Your task to perform on an android device: star an email in the gmail app Image 0: 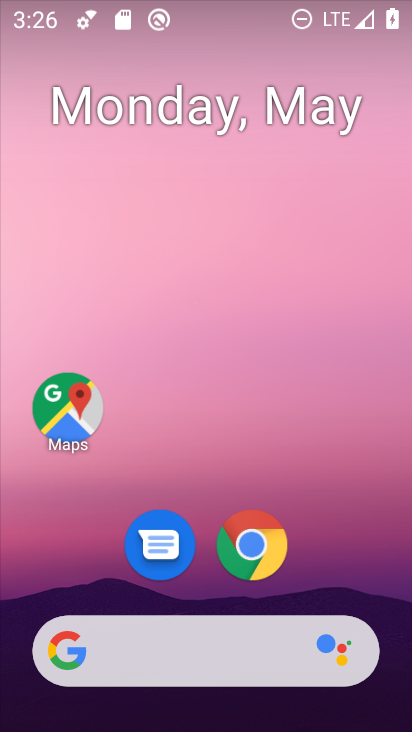
Step 0: drag from (289, 511) to (284, 142)
Your task to perform on an android device: star an email in the gmail app Image 1: 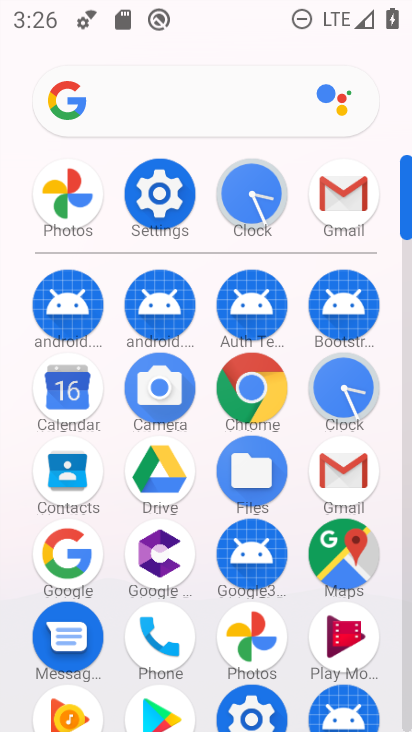
Step 1: click (354, 217)
Your task to perform on an android device: star an email in the gmail app Image 2: 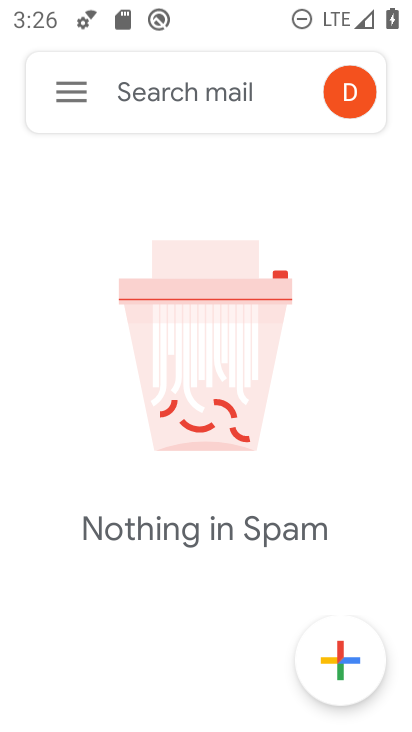
Step 2: click (62, 88)
Your task to perform on an android device: star an email in the gmail app Image 3: 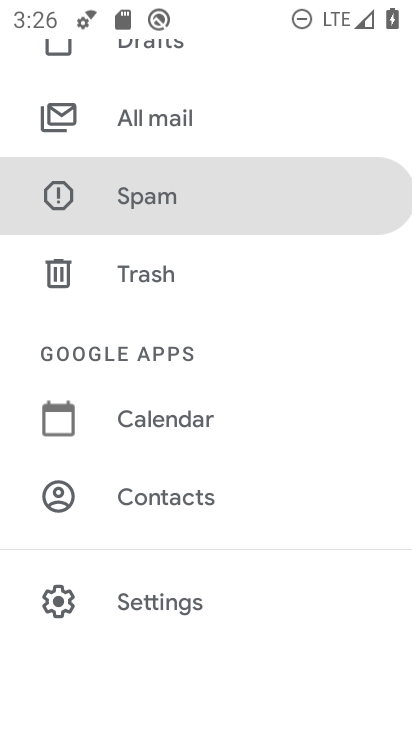
Step 3: drag from (289, 162) to (355, 572)
Your task to perform on an android device: star an email in the gmail app Image 4: 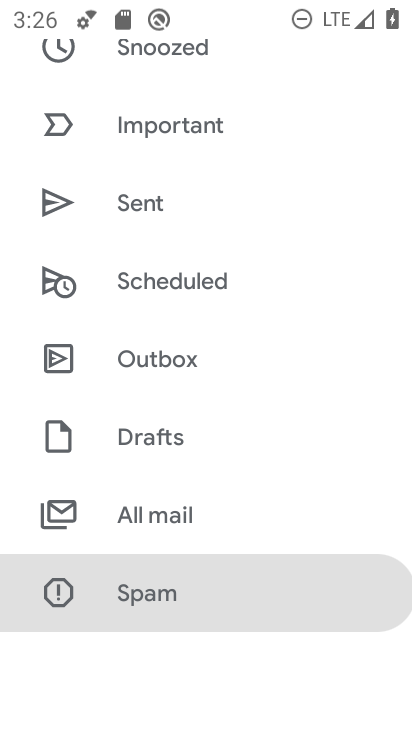
Step 4: drag from (274, 281) to (275, 537)
Your task to perform on an android device: star an email in the gmail app Image 5: 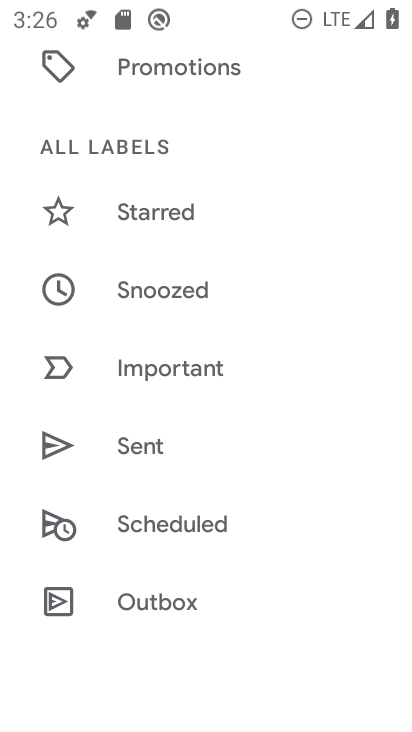
Step 5: drag from (278, 225) to (321, 548)
Your task to perform on an android device: star an email in the gmail app Image 6: 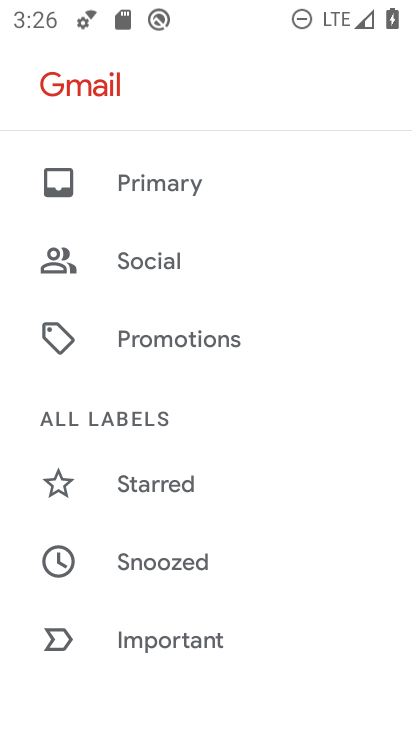
Step 6: click (168, 175)
Your task to perform on an android device: star an email in the gmail app Image 7: 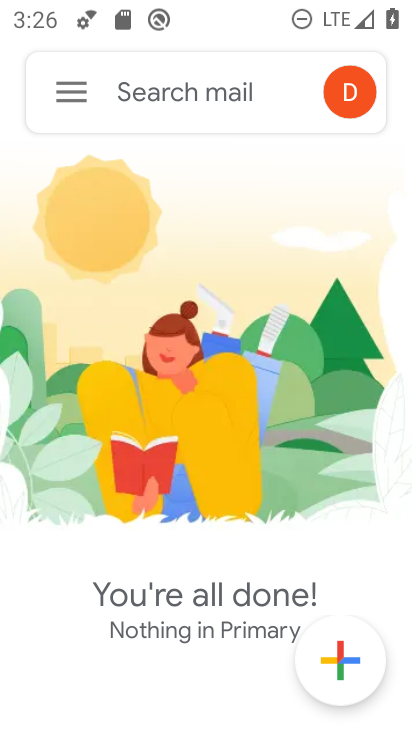
Step 7: task complete